Your task to perform on an android device: Open CNN.com Image 0: 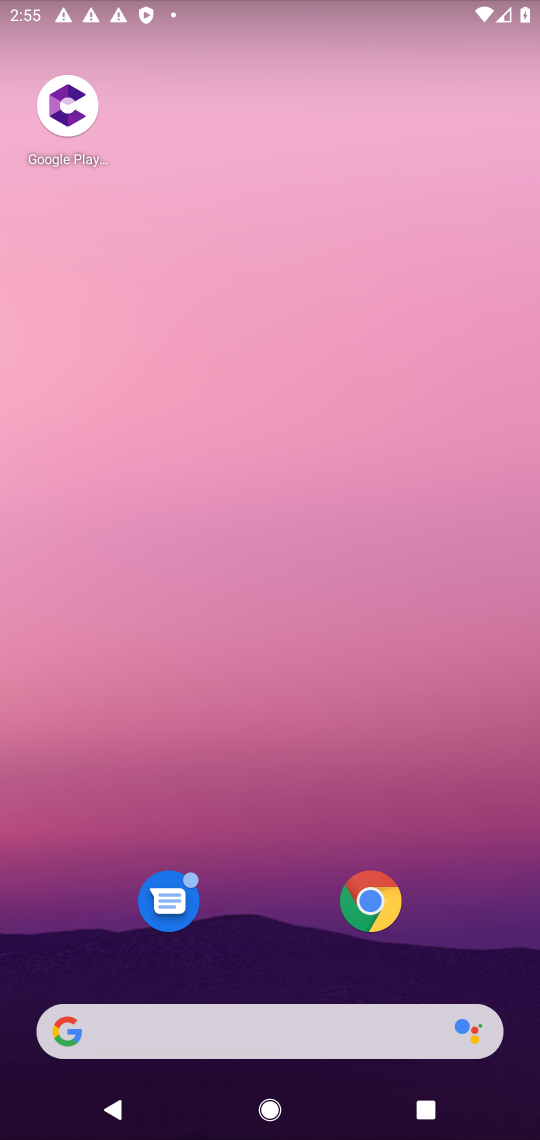
Step 0: drag from (261, 957) to (284, 21)
Your task to perform on an android device: Open CNN.com Image 1: 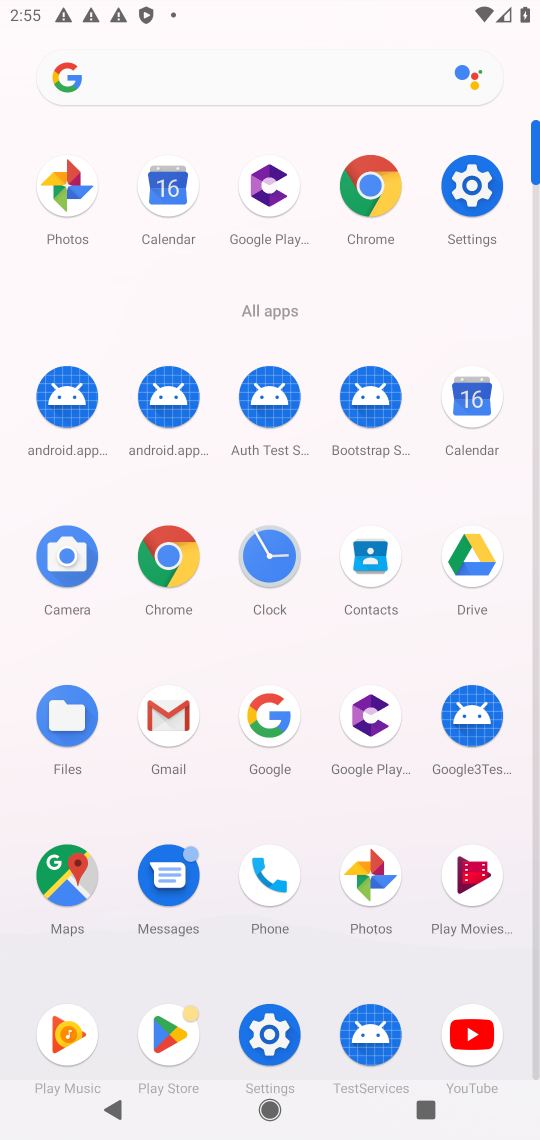
Step 1: click (179, 590)
Your task to perform on an android device: Open CNN.com Image 2: 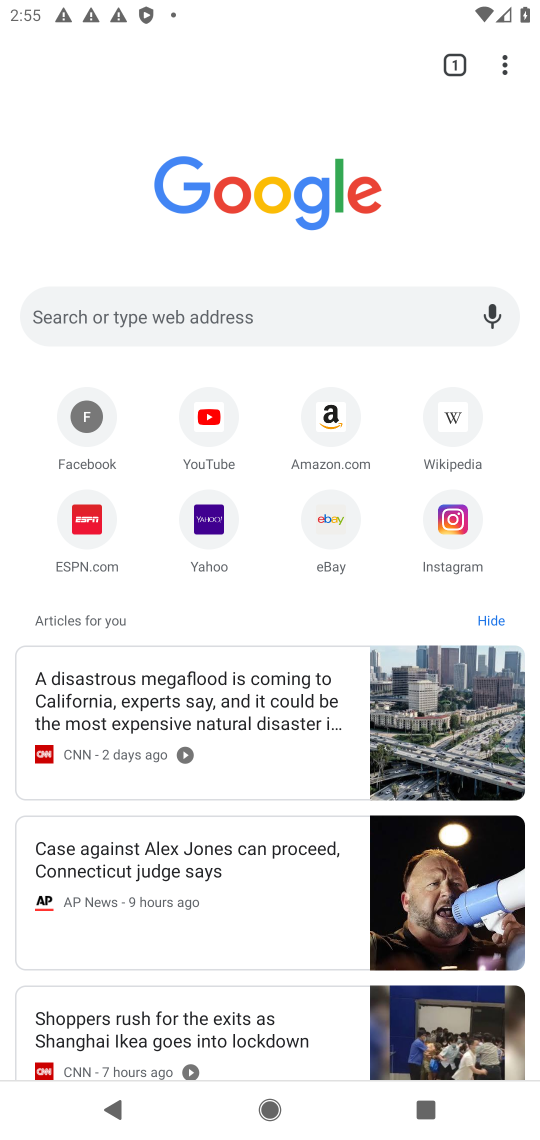
Step 2: click (241, 309)
Your task to perform on an android device: Open CNN.com Image 3: 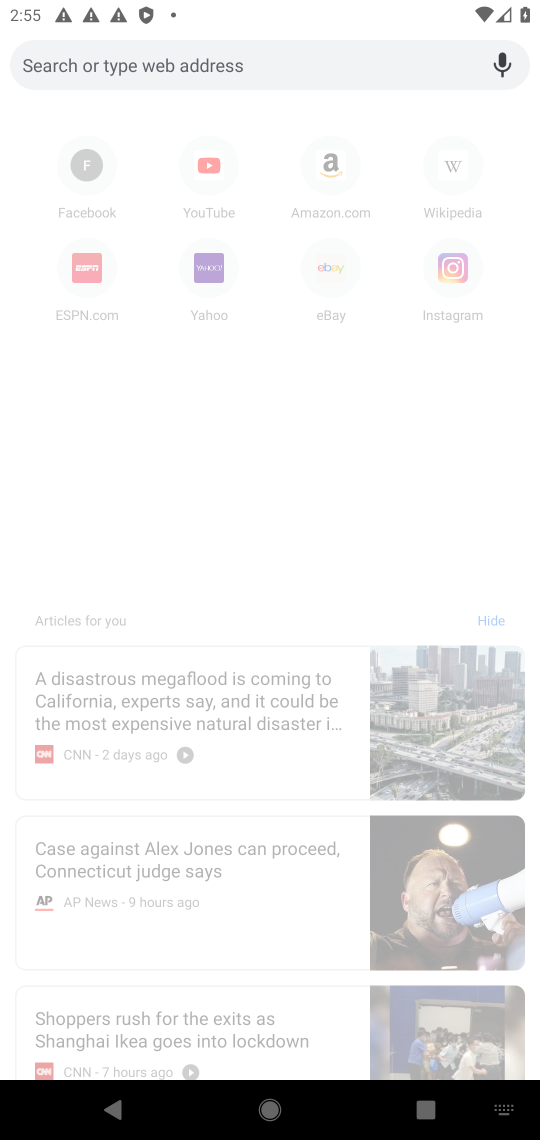
Step 3: type "CNN.com"
Your task to perform on an android device: Open CNN.com Image 4: 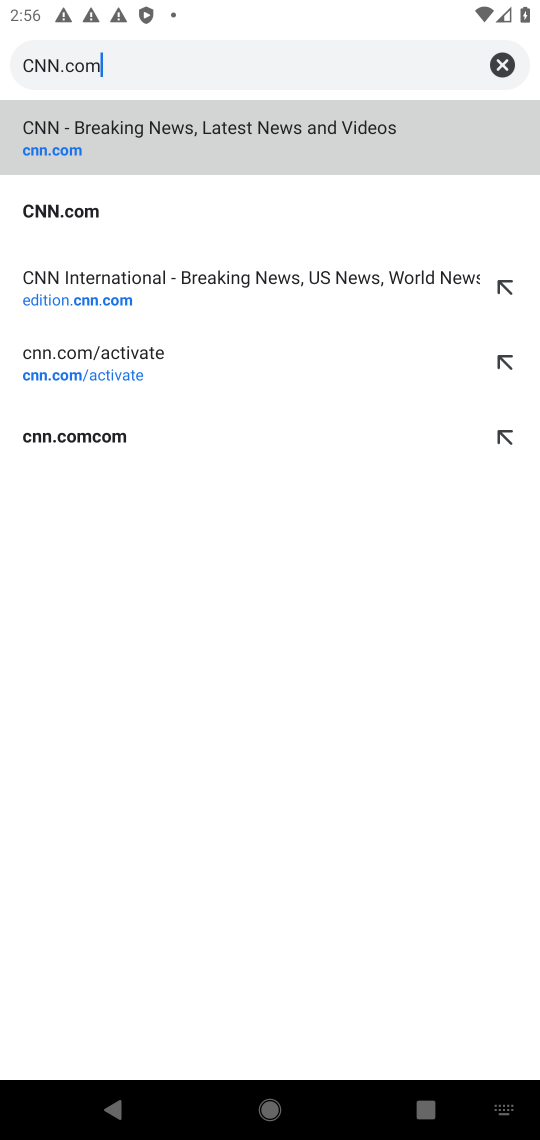
Step 4: click (130, 122)
Your task to perform on an android device: Open CNN.com Image 5: 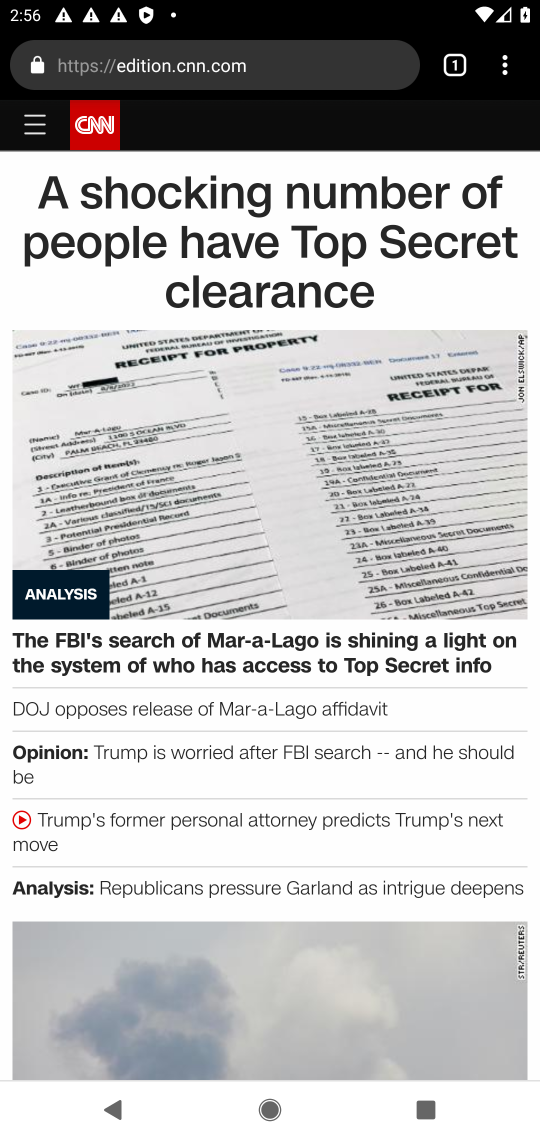
Step 5: task complete